Your task to perform on an android device: change keyboard looks Image 0: 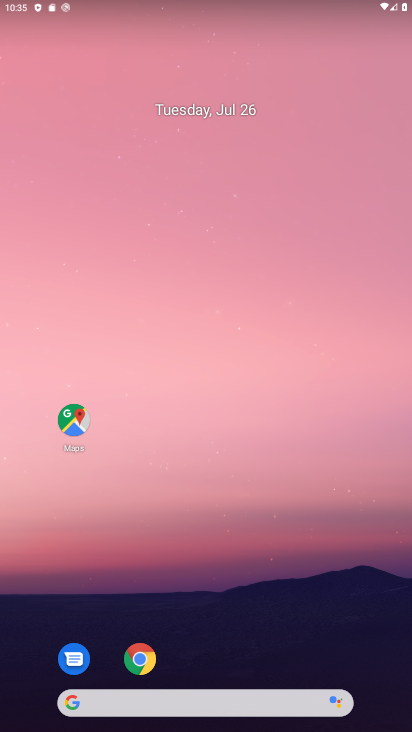
Step 0: drag from (27, 704) to (270, 108)
Your task to perform on an android device: change keyboard looks Image 1: 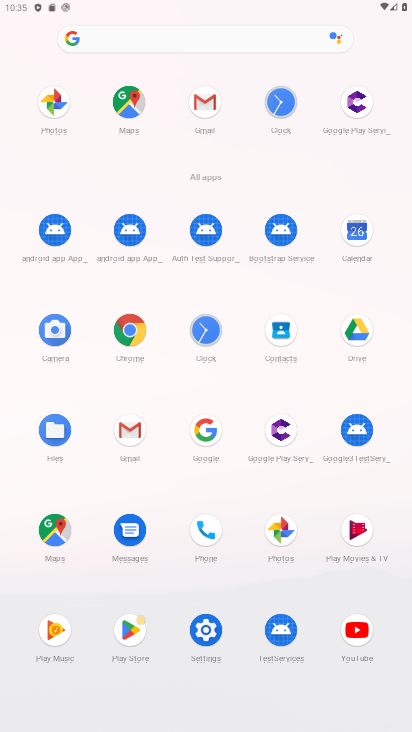
Step 1: click (201, 617)
Your task to perform on an android device: change keyboard looks Image 2: 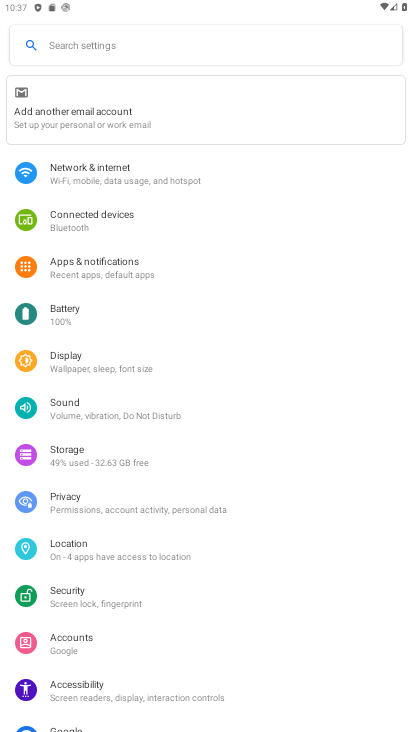
Step 2: task complete